Your task to perform on an android device: Search for sushi restaurants on Maps Image 0: 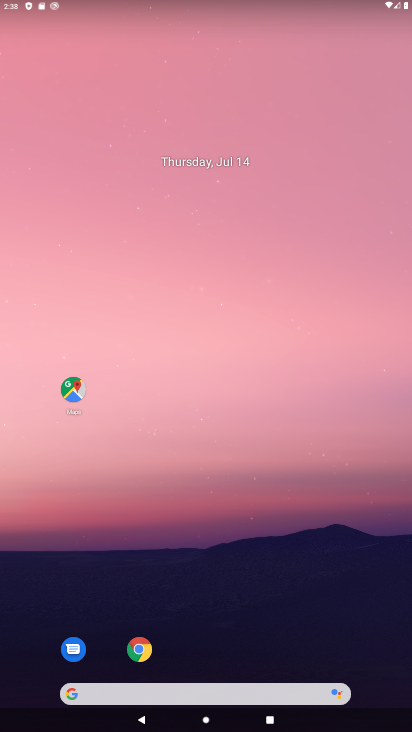
Step 0: click (81, 396)
Your task to perform on an android device: Search for sushi restaurants on Maps Image 1: 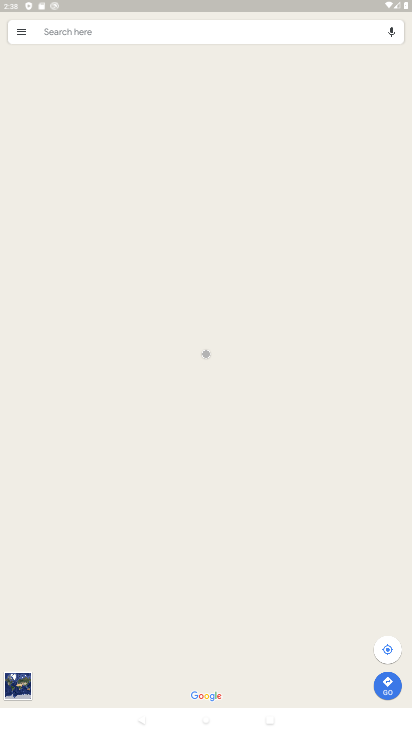
Step 1: click (96, 26)
Your task to perform on an android device: Search for sushi restaurants on Maps Image 2: 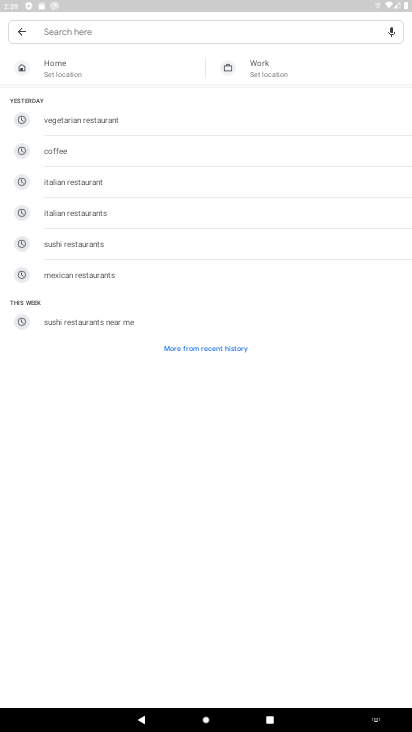
Step 2: type "sushi restaurrants"
Your task to perform on an android device: Search for sushi restaurants on Maps Image 3: 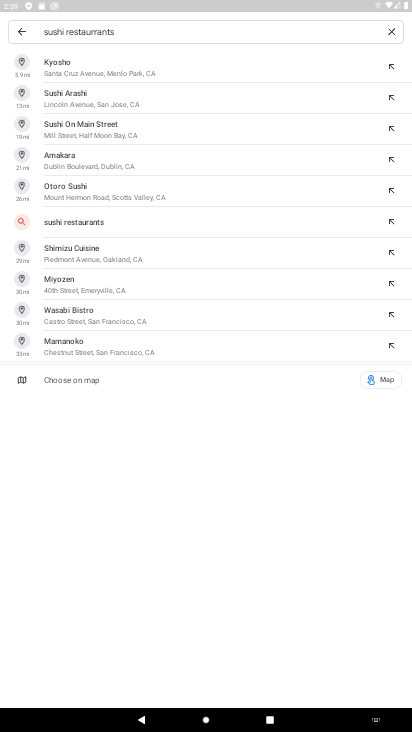
Step 3: task complete